Your task to perform on an android device: turn on notifications settings in the gmail app Image 0: 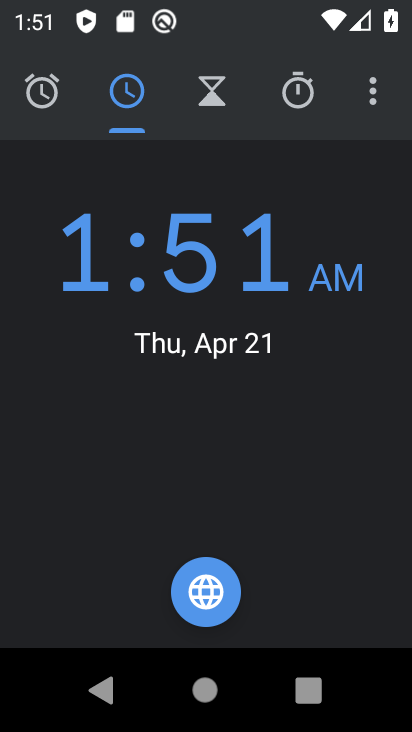
Step 0: press home button
Your task to perform on an android device: turn on notifications settings in the gmail app Image 1: 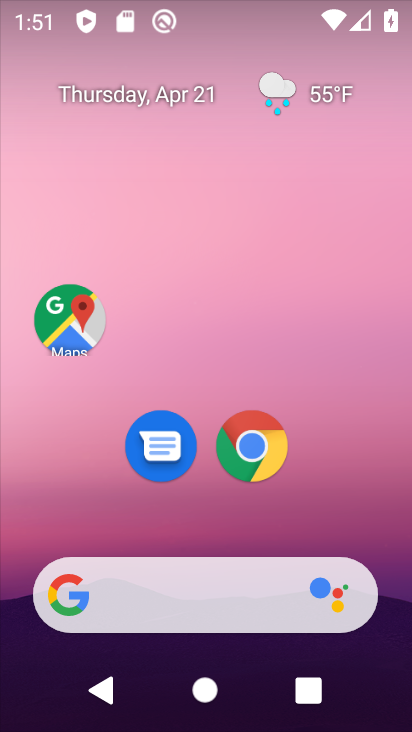
Step 1: drag from (213, 724) to (179, 99)
Your task to perform on an android device: turn on notifications settings in the gmail app Image 2: 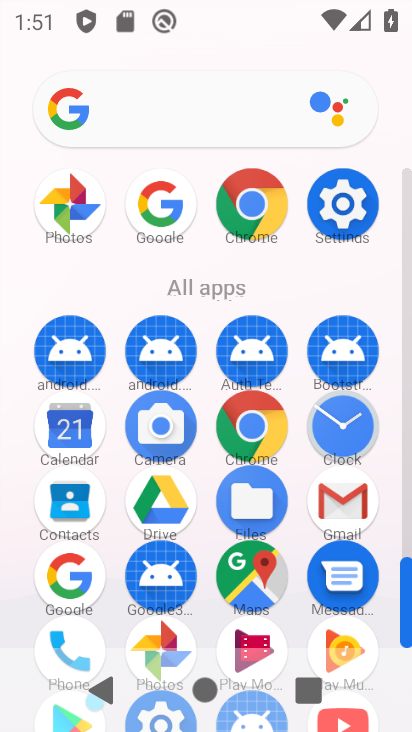
Step 2: click (347, 498)
Your task to perform on an android device: turn on notifications settings in the gmail app Image 3: 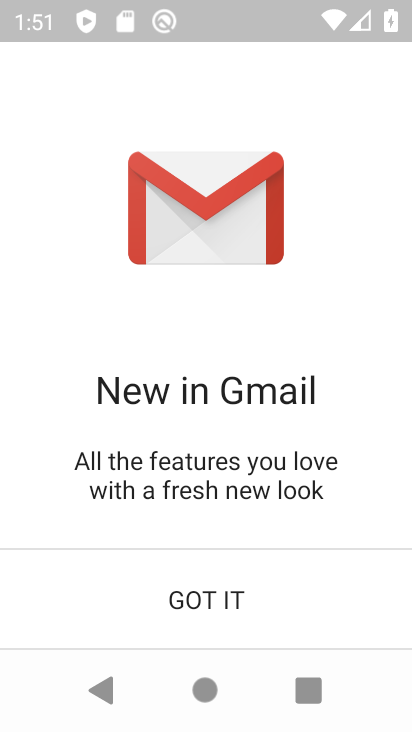
Step 3: click (188, 601)
Your task to perform on an android device: turn on notifications settings in the gmail app Image 4: 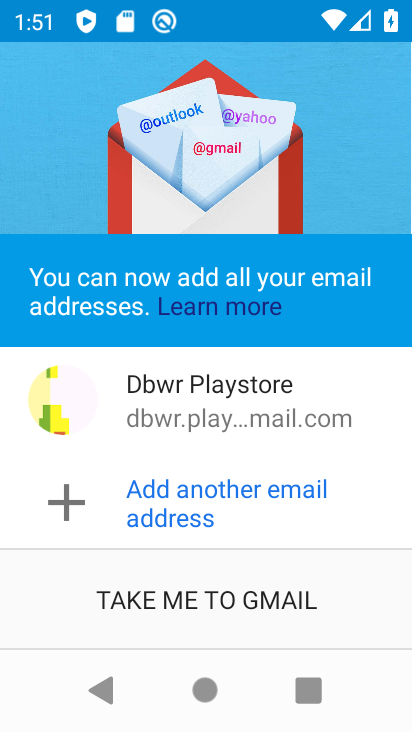
Step 4: click (219, 597)
Your task to perform on an android device: turn on notifications settings in the gmail app Image 5: 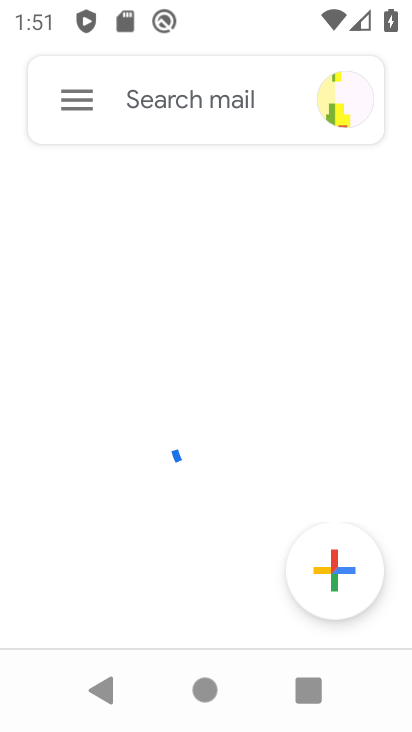
Step 5: click (78, 96)
Your task to perform on an android device: turn on notifications settings in the gmail app Image 6: 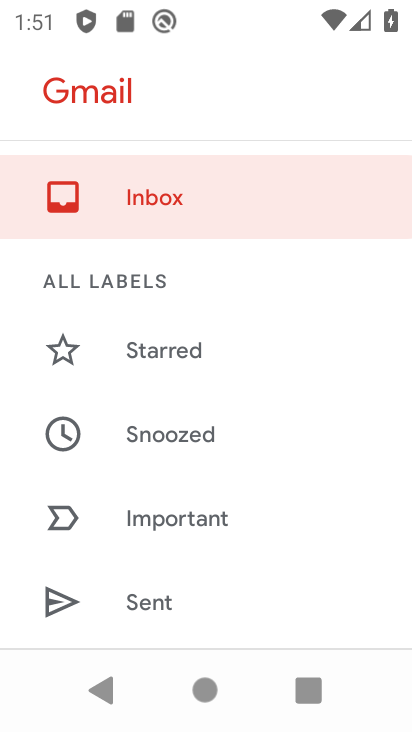
Step 6: drag from (180, 578) to (212, 219)
Your task to perform on an android device: turn on notifications settings in the gmail app Image 7: 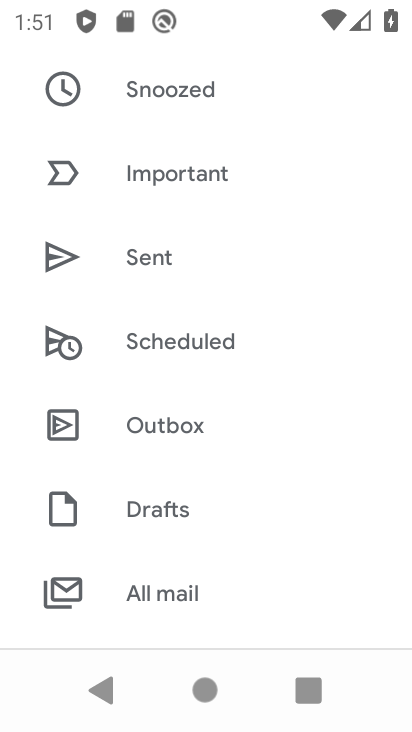
Step 7: drag from (195, 622) to (192, 215)
Your task to perform on an android device: turn on notifications settings in the gmail app Image 8: 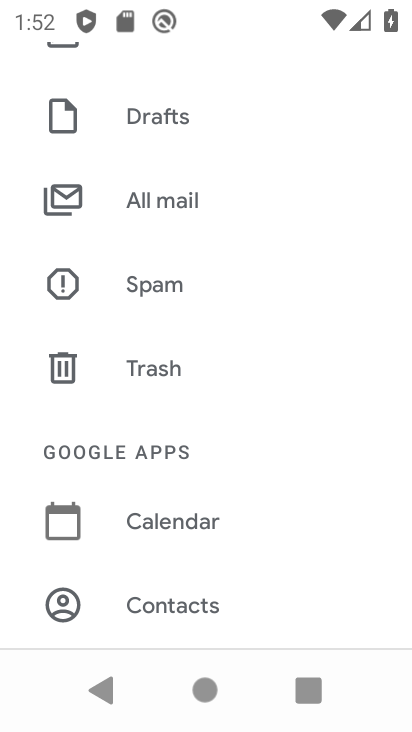
Step 8: drag from (216, 591) to (211, 300)
Your task to perform on an android device: turn on notifications settings in the gmail app Image 9: 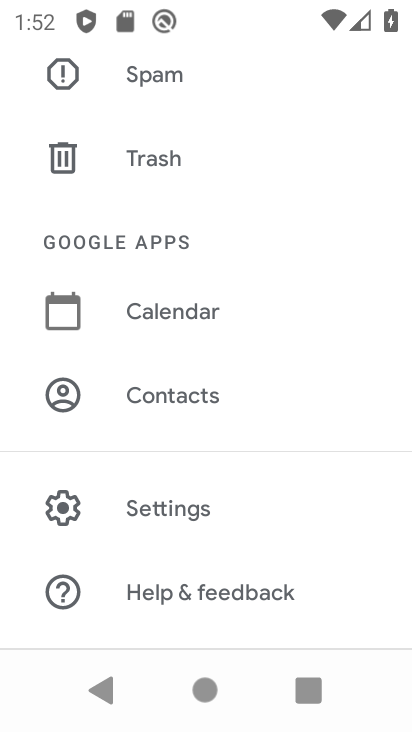
Step 9: click (175, 509)
Your task to perform on an android device: turn on notifications settings in the gmail app Image 10: 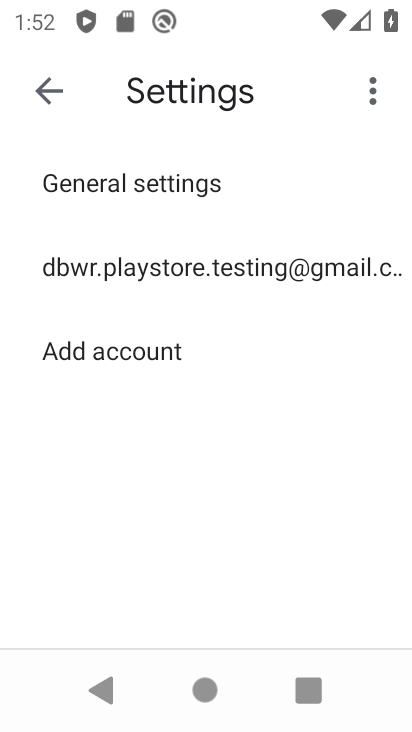
Step 10: click (207, 259)
Your task to perform on an android device: turn on notifications settings in the gmail app Image 11: 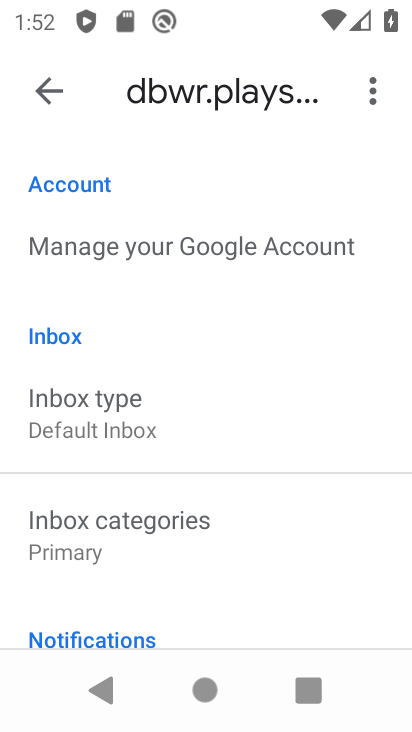
Step 11: task complete